Your task to perform on an android device: Go to sound settings Image 0: 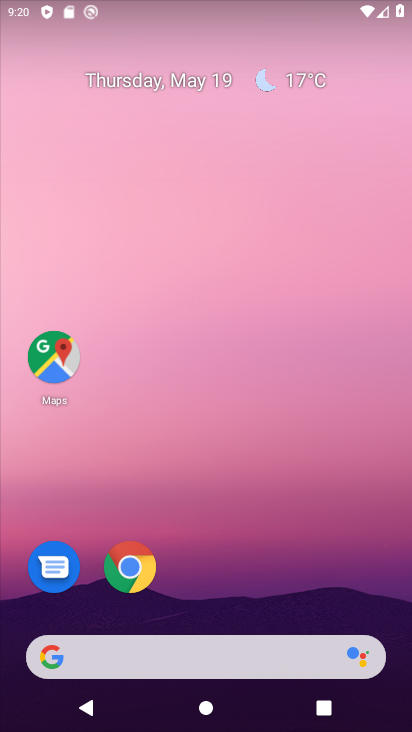
Step 0: drag from (347, 603) to (254, 140)
Your task to perform on an android device: Go to sound settings Image 1: 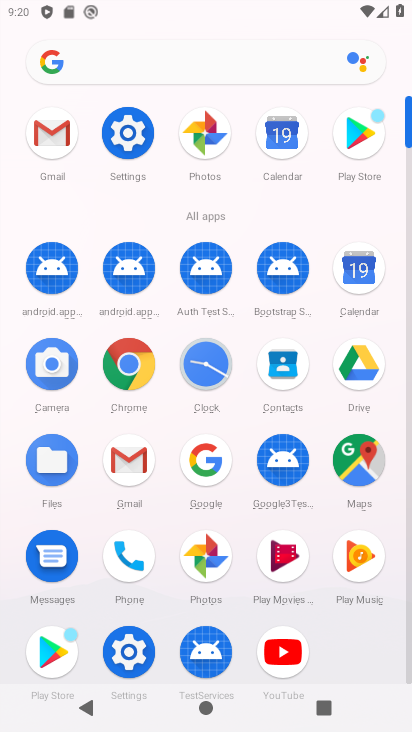
Step 1: drag from (254, 222) to (238, 186)
Your task to perform on an android device: Go to sound settings Image 2: 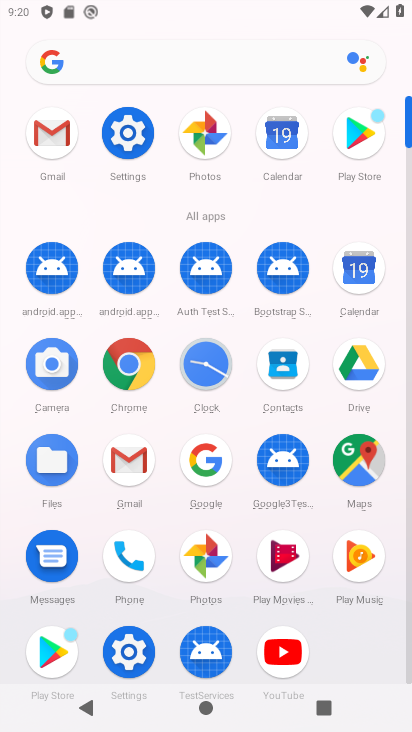
Step 2: click (132, 146)
Your task to perform on an android device: Go to sound settings Image 3: 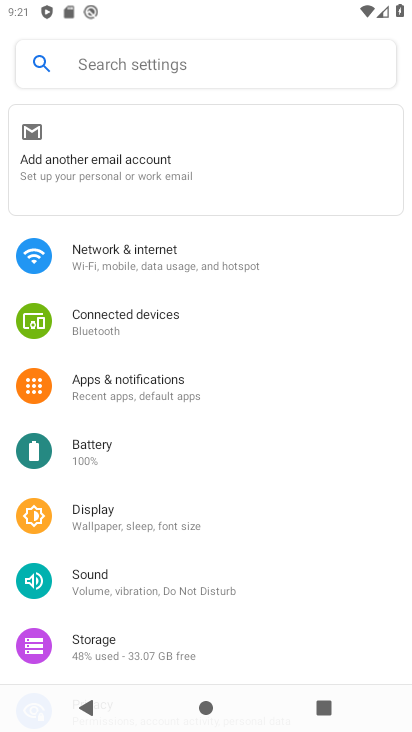
Step 3: click (153, 573)
Your task to perform on an android device: Go to sound settings Image 4: 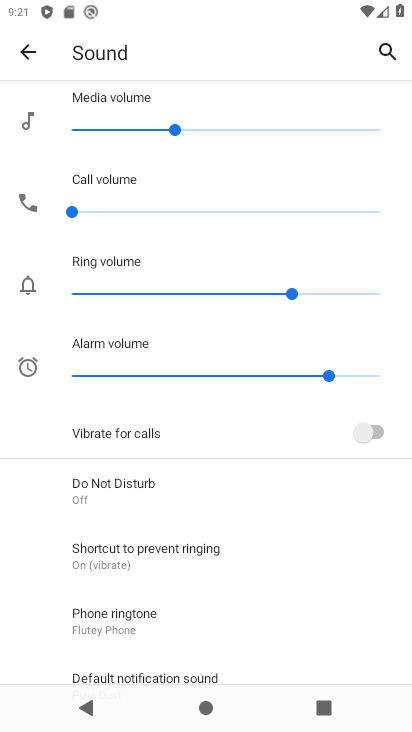
Step 4: task complete